Your task to perform on an android device: What's the weather? Image 0: 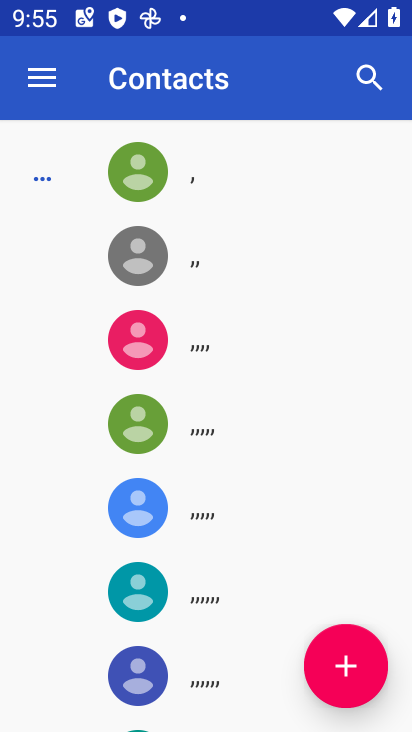
Step 0: press home button
Your task to perform on an android device: What's the weather? Image 1: 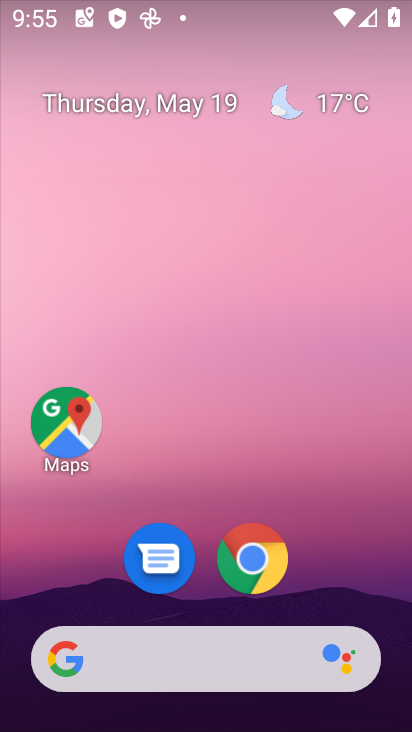
Step 1: click (285, 101)
Your task to perform on an android device: What's the weather? Image 2: 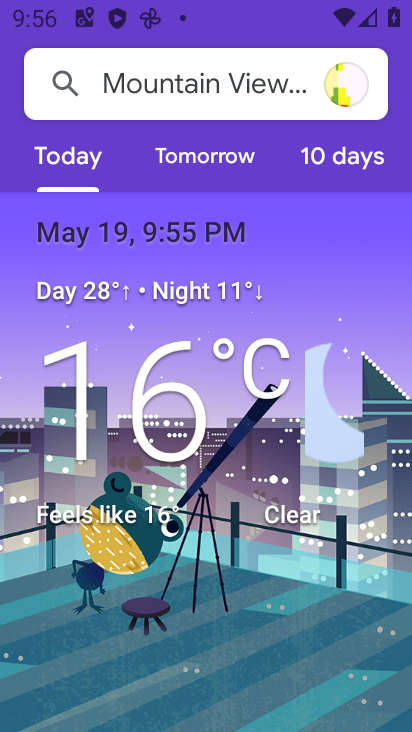
Step 2: task complete